Your task to perform on an android device: open app "LinkedIn" (install if not already installed) Image 0: 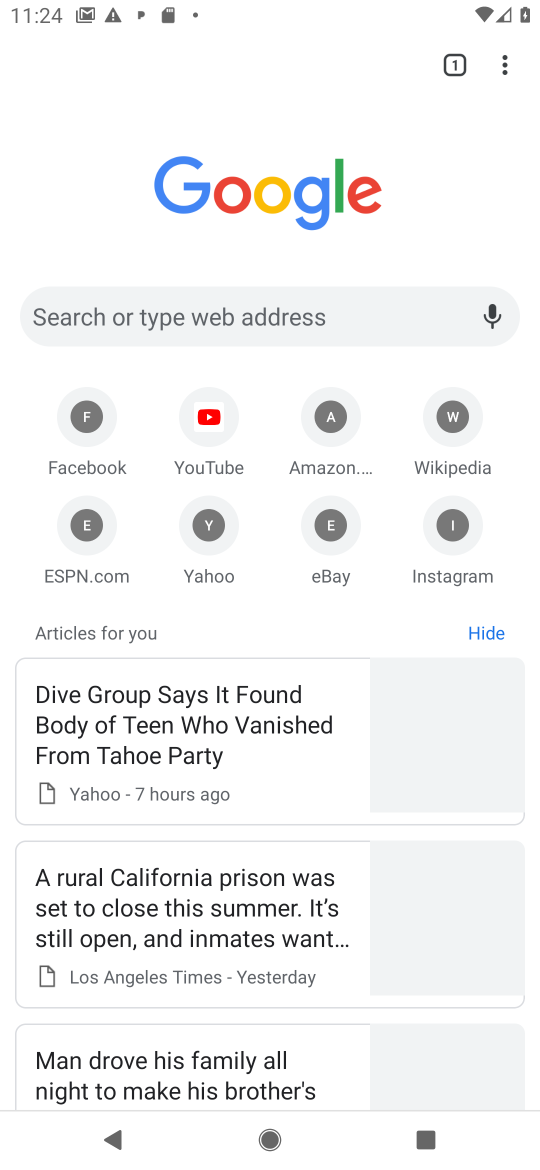
Step 0: press back button
Your task to perform on an android device: open app "LinkedIn" (install if not already installed) Image 1: 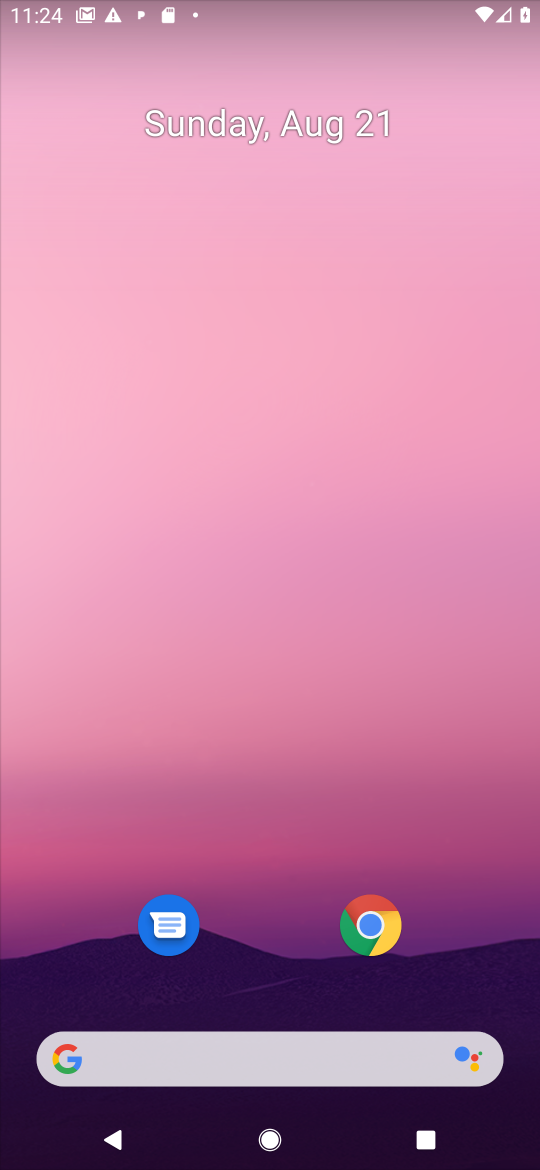
Step 1: drag from (243, 897) to (321, 82)
Your task to perform on an android device: open app "LinkedIn" (install if not already installed) Image 2: 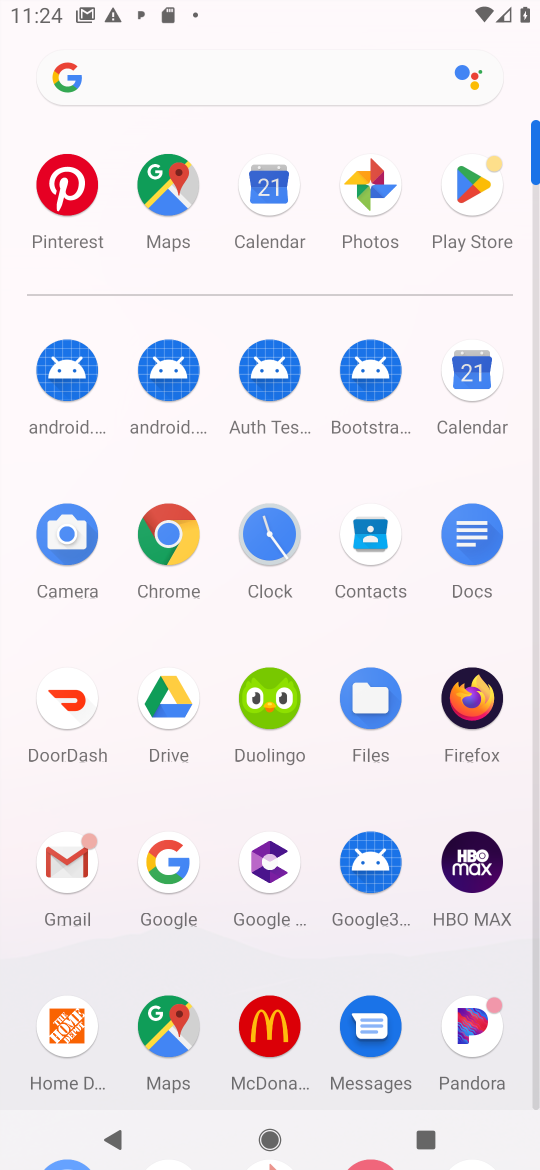
Step 2: click (483, 178)
Your task to perform on an android device: open app "LinkedIn" (install if not already installed) Image 3: 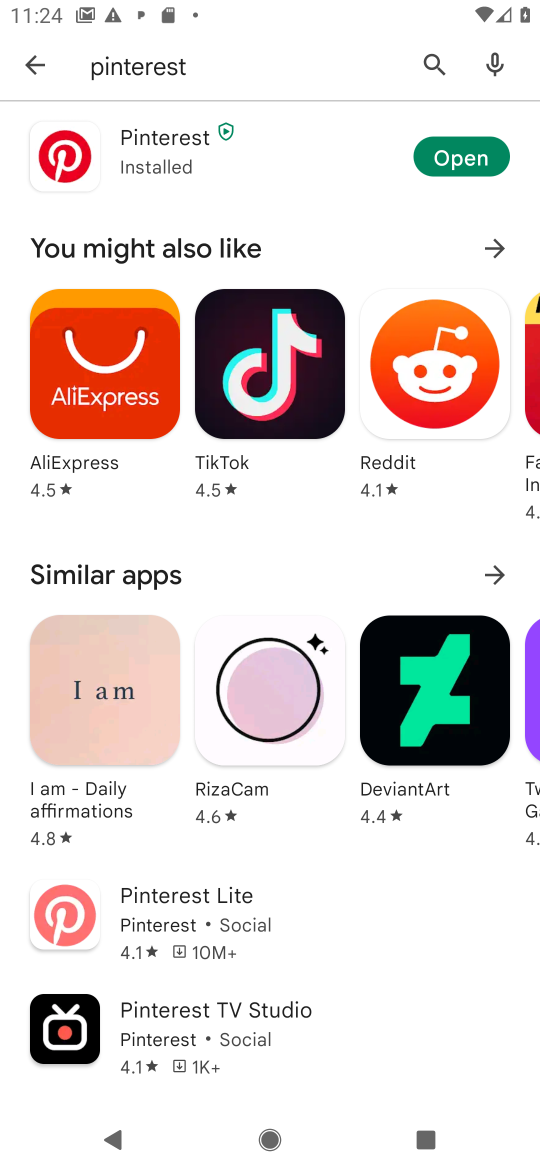
Step 3: click (429, 56)
Your task to perform on an android device: open app "LinkedIn" (install if not already installed) Image 4: 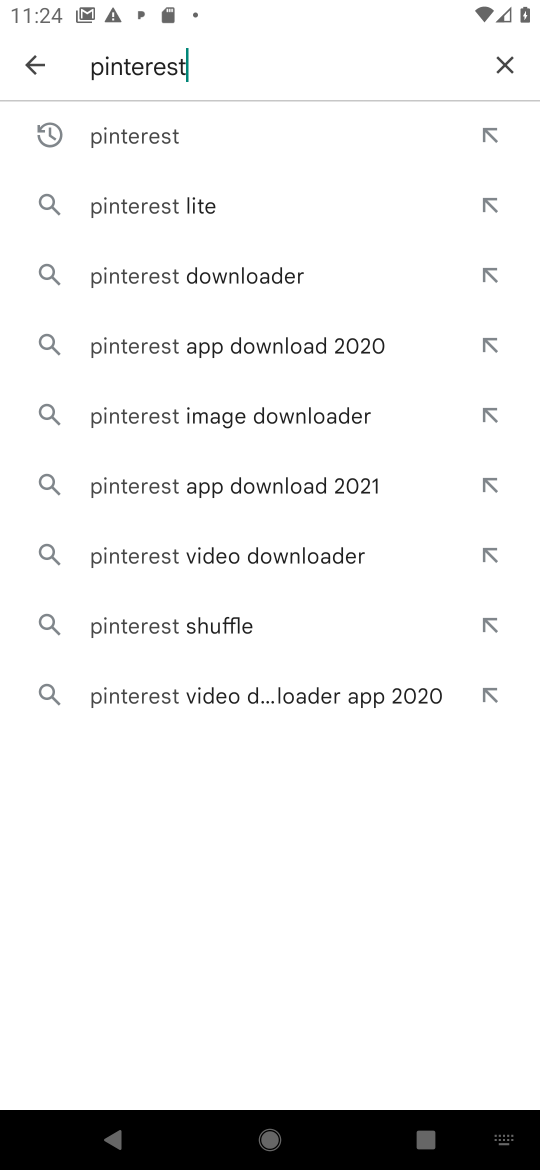
Step 4: click (493, 53)
Your task to perform on an android device: open app "LinkedIn" (install if not already installed) Image 5: 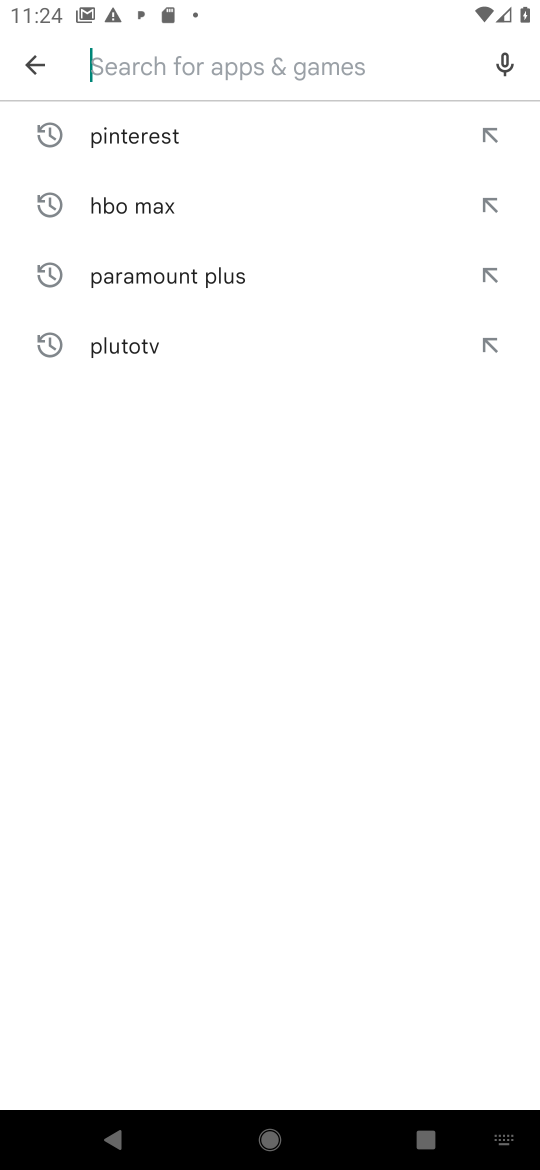
Step 5: click (304, 73)
Your task to perform on an android device: open app "LinkedIn" (install if not already installed) Image 6: 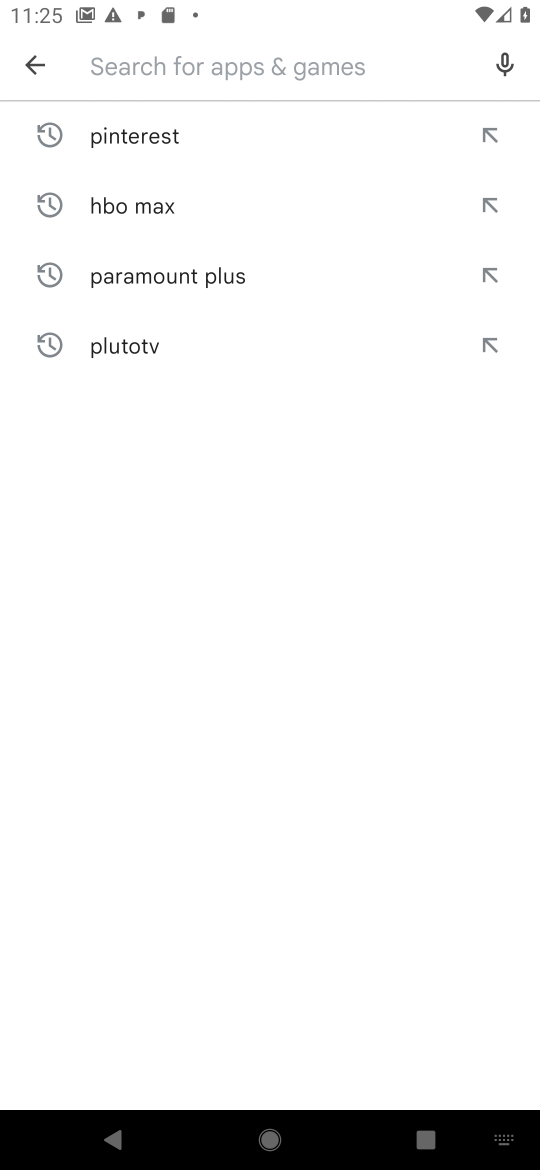
Step 6: type "linkedln"
Your task to perform on an android device: open app "LinkedIn" (install if not already installed) Image 7: 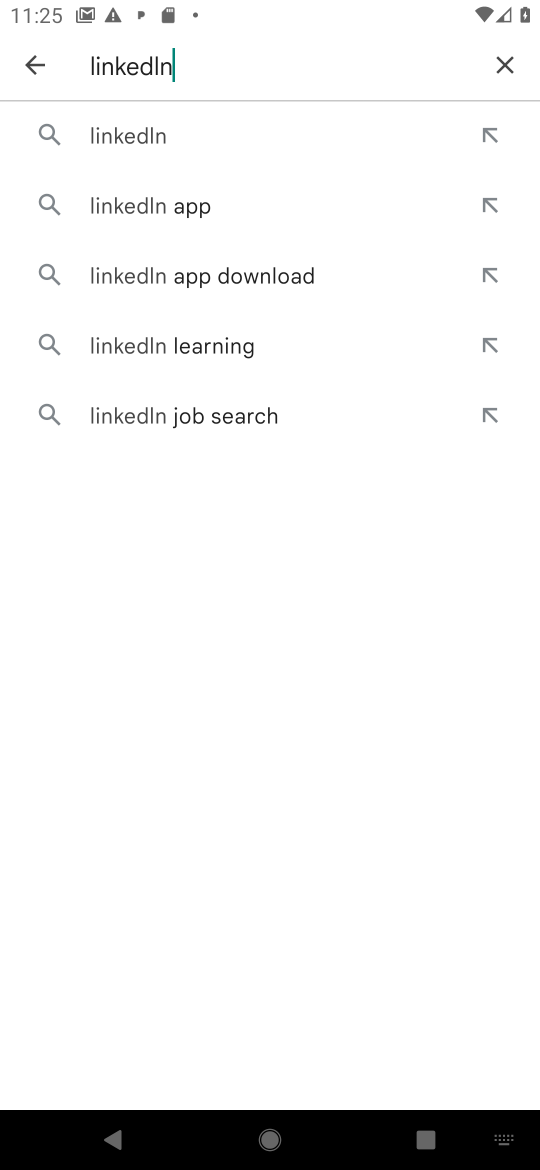
Step 7: click (155, 131)
Your task to perform on an android device: open app "LinkedIn" (install if not already installed) Image 8: 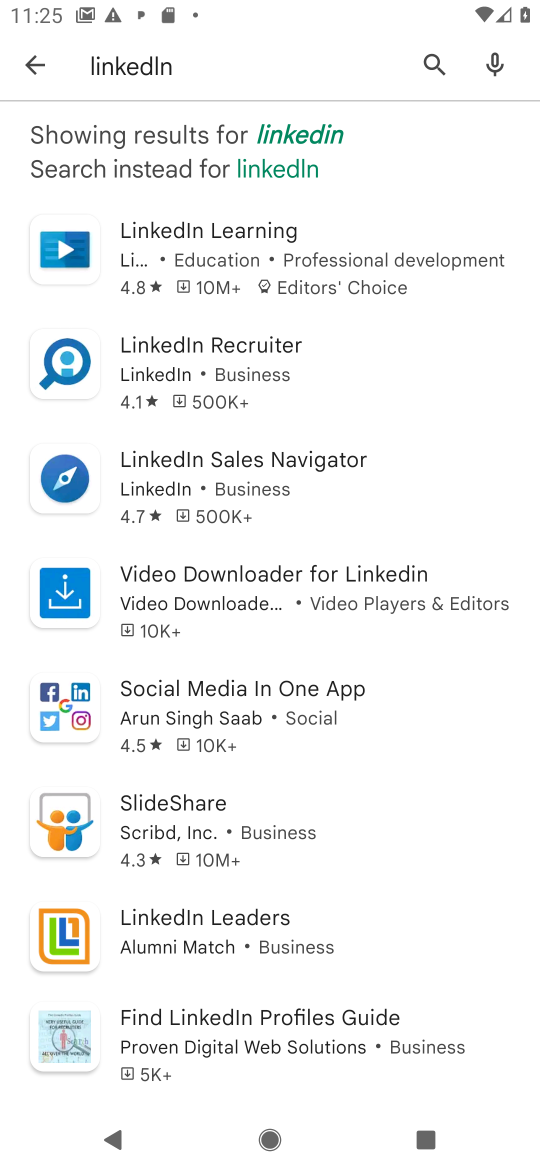
Step 8: task complete